Your task to perform on an android device: Go to network settings Image 0: 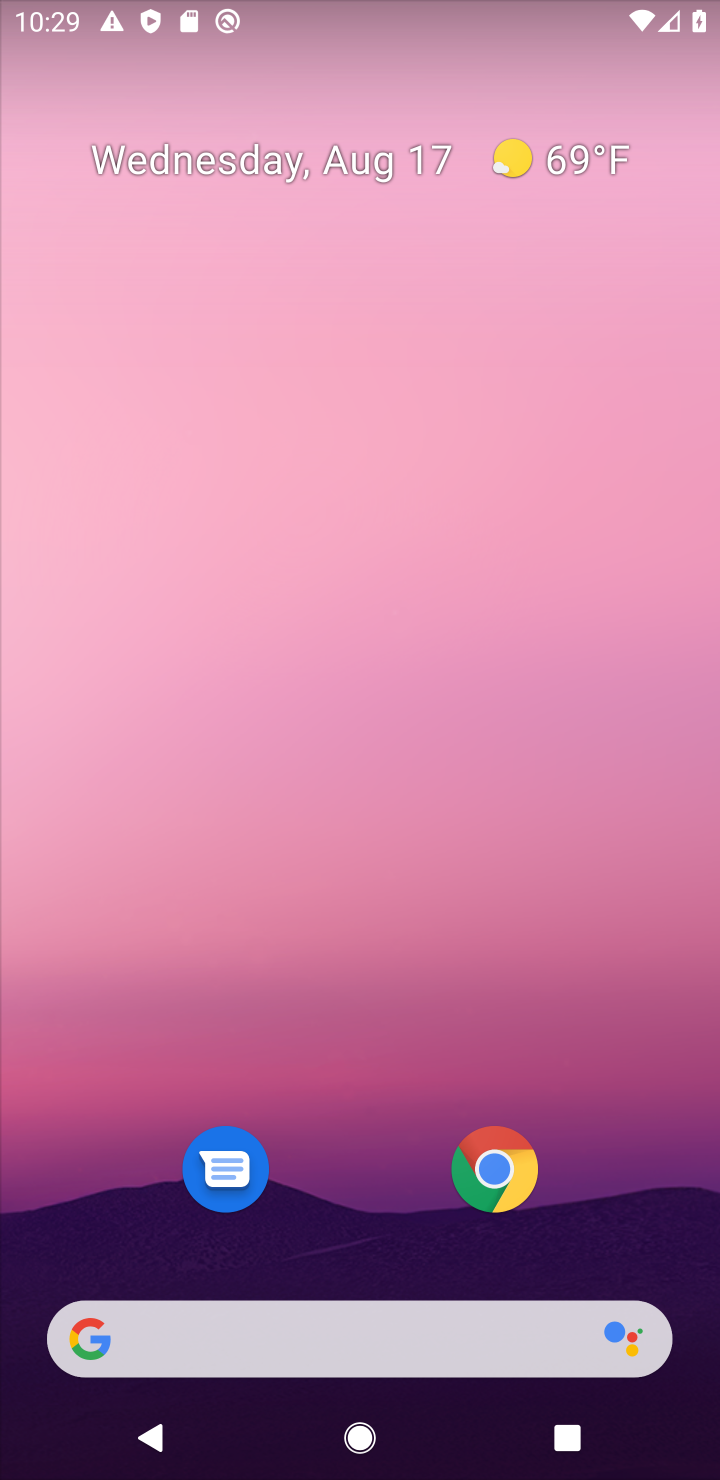
Step 0: drag from (363, 921) to (576, 311)
Your task to perform on an android device: Go to network settings Image 1: 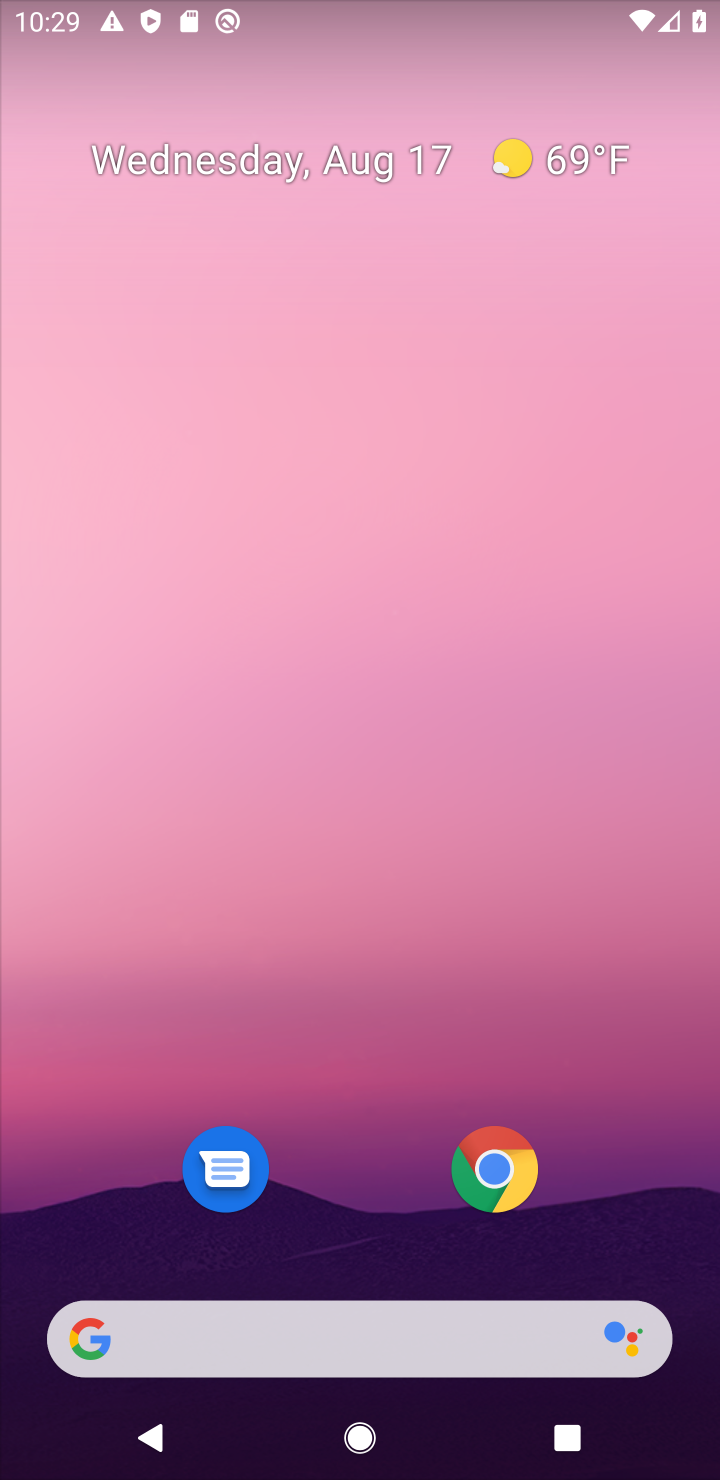
Step 1: task complete